Your task to perform on an android device: Add logitech g pro to the cart on target.com Image 0: 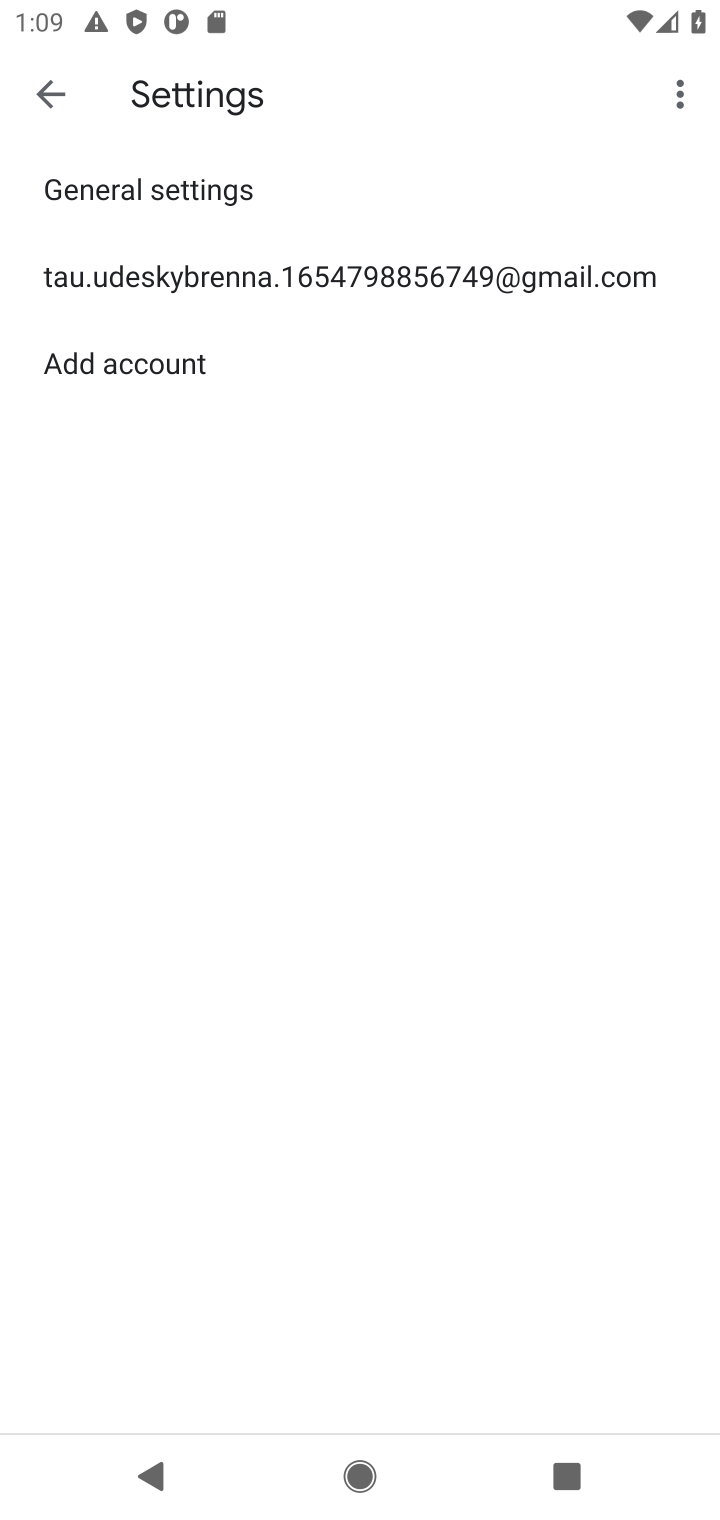
Step 0: press home button
Your task to perform on an android device: Add logitech g pro to the cart on target.com Image 1: 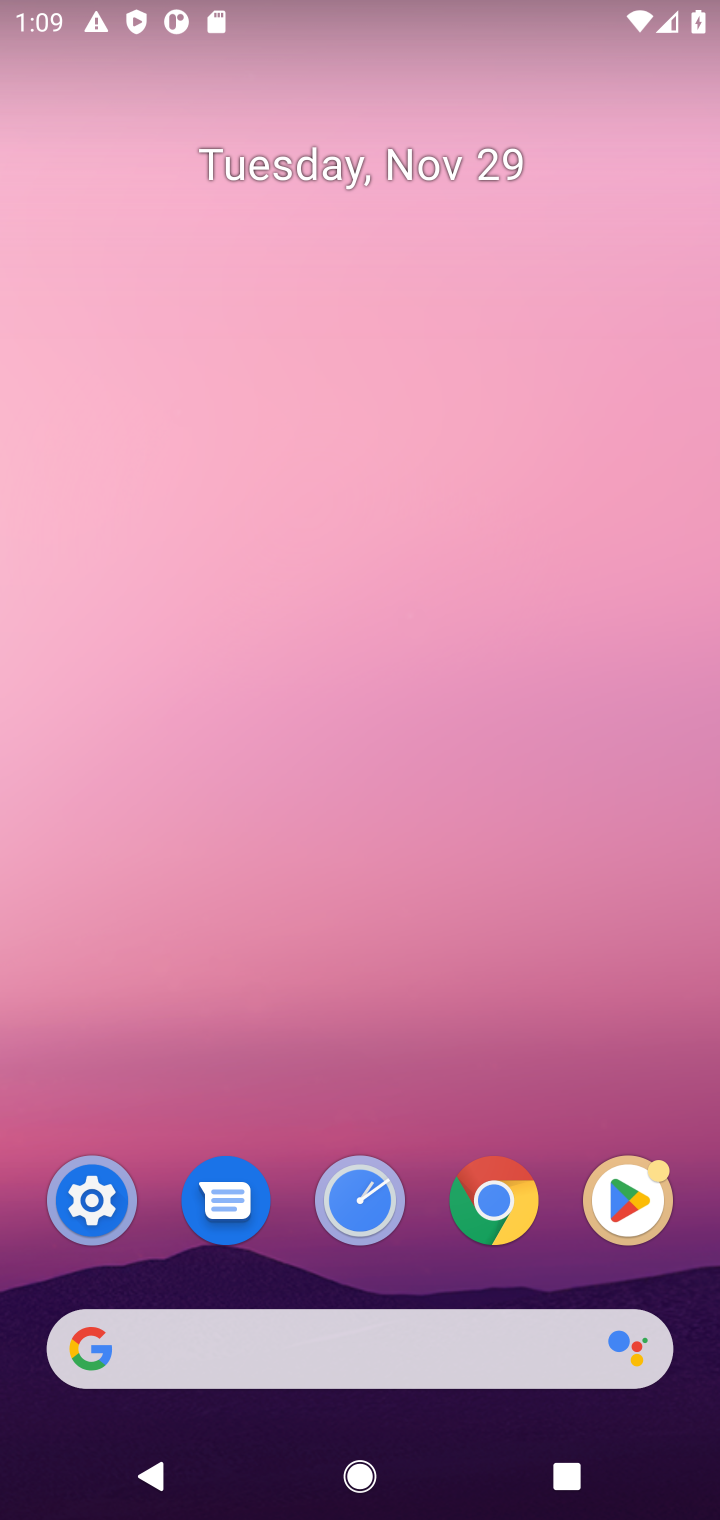
Step 1: click (277, 1359)
Your task to perform on an android device: Add logitech g pro to the cart on target.com Image 2: 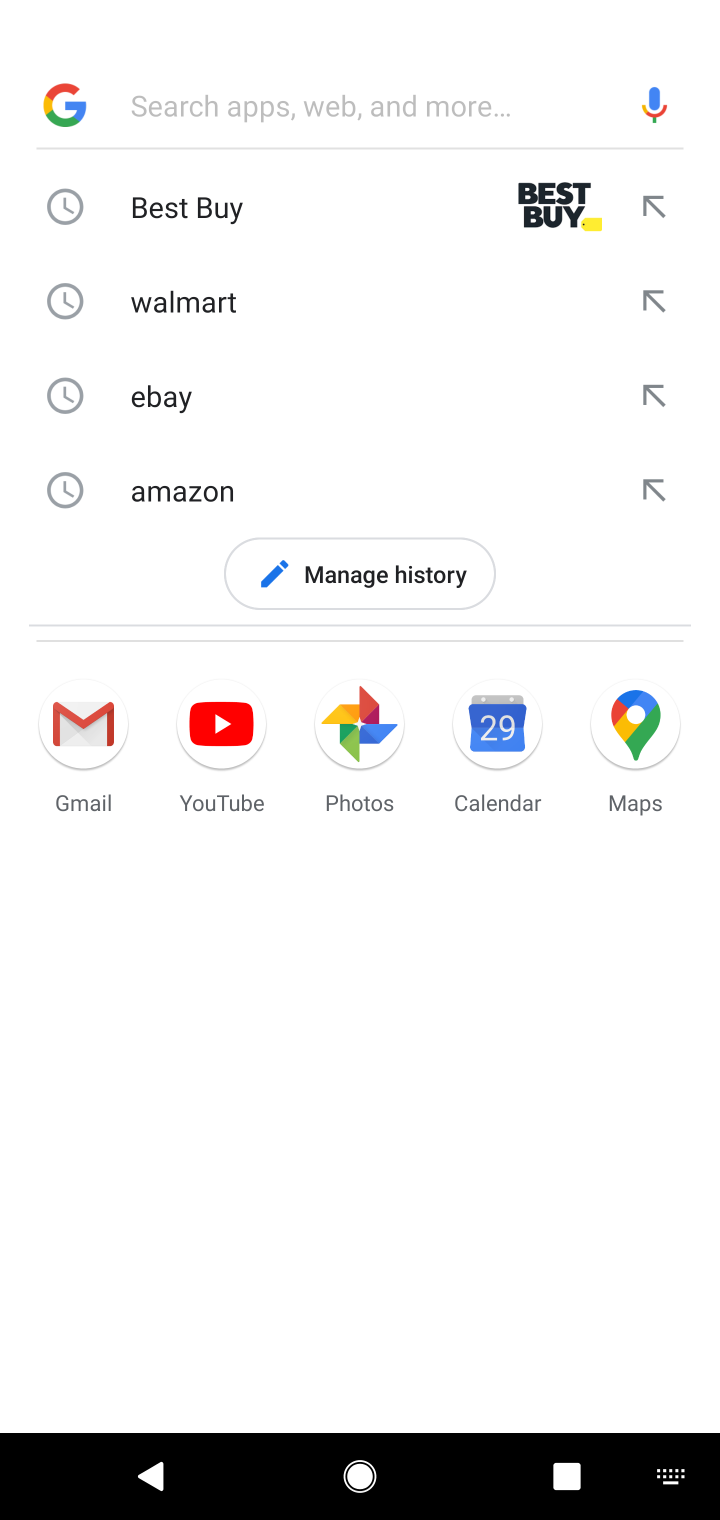
Step 2: type "target "
Your task to perform on an android device: Add logitech g pro to the cart on target.com Image 3: 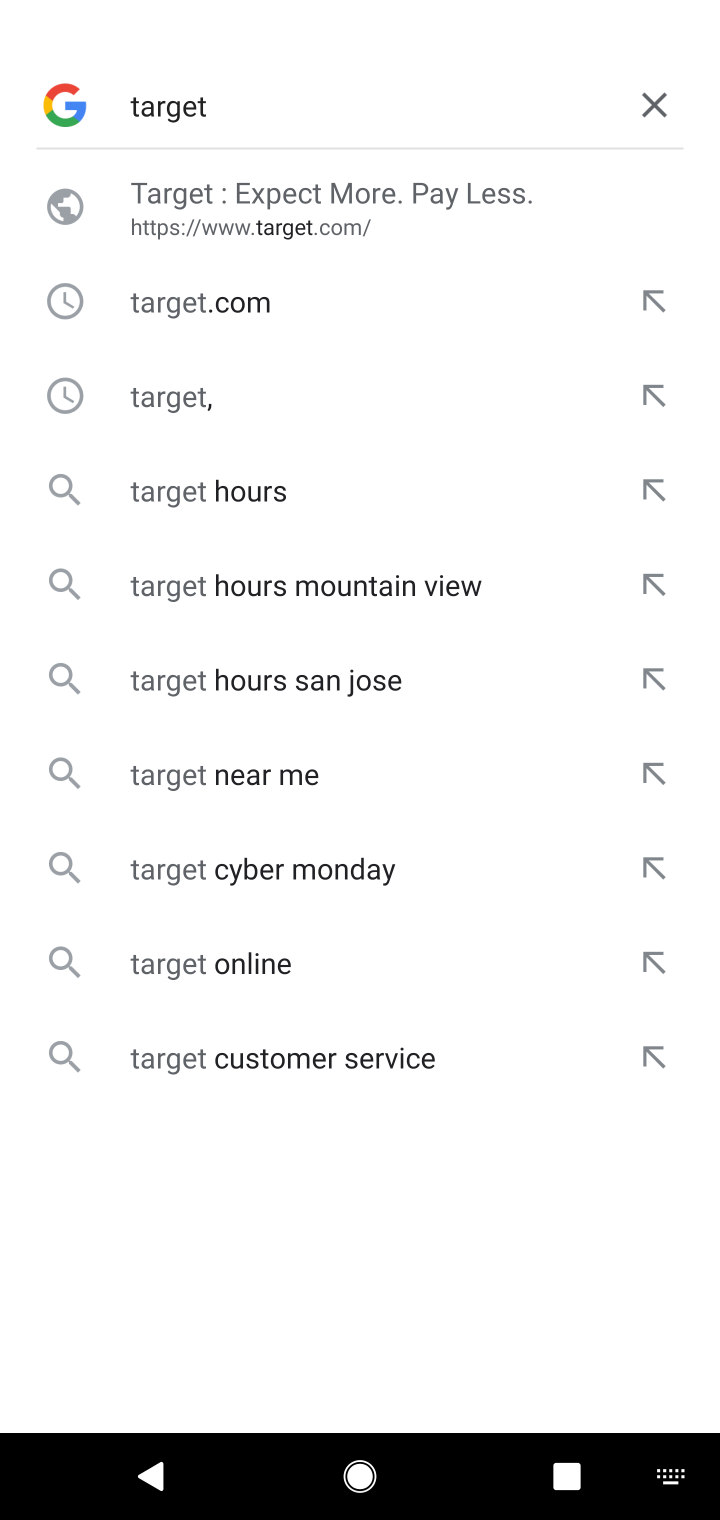
Step 3: click (178, 251)
Your task to perform on an android device: Add logitech g pro to the cart on target.com Image 4: 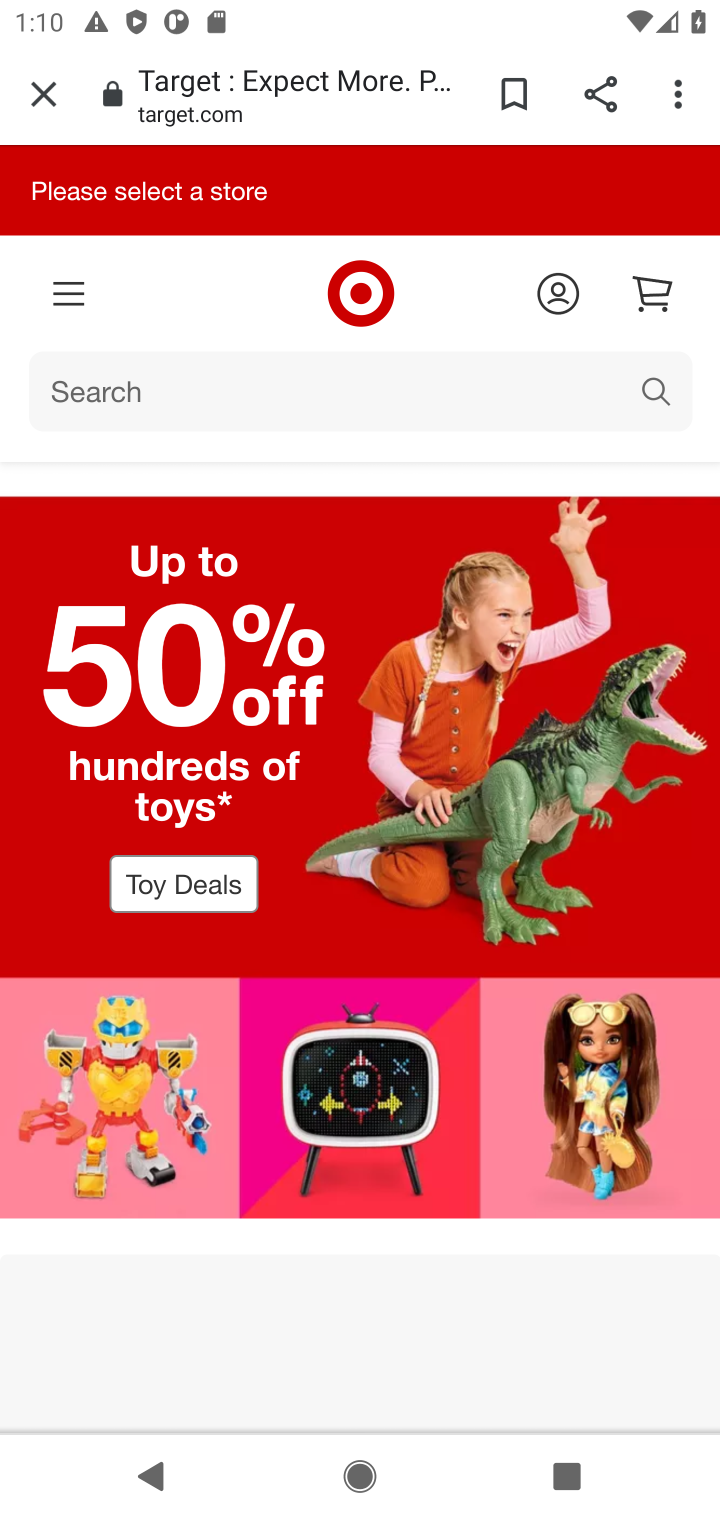
Step 4: click (199, 393)
Your task to perform on an android device: Add logitech g pro to the cart on target.com Image 5: 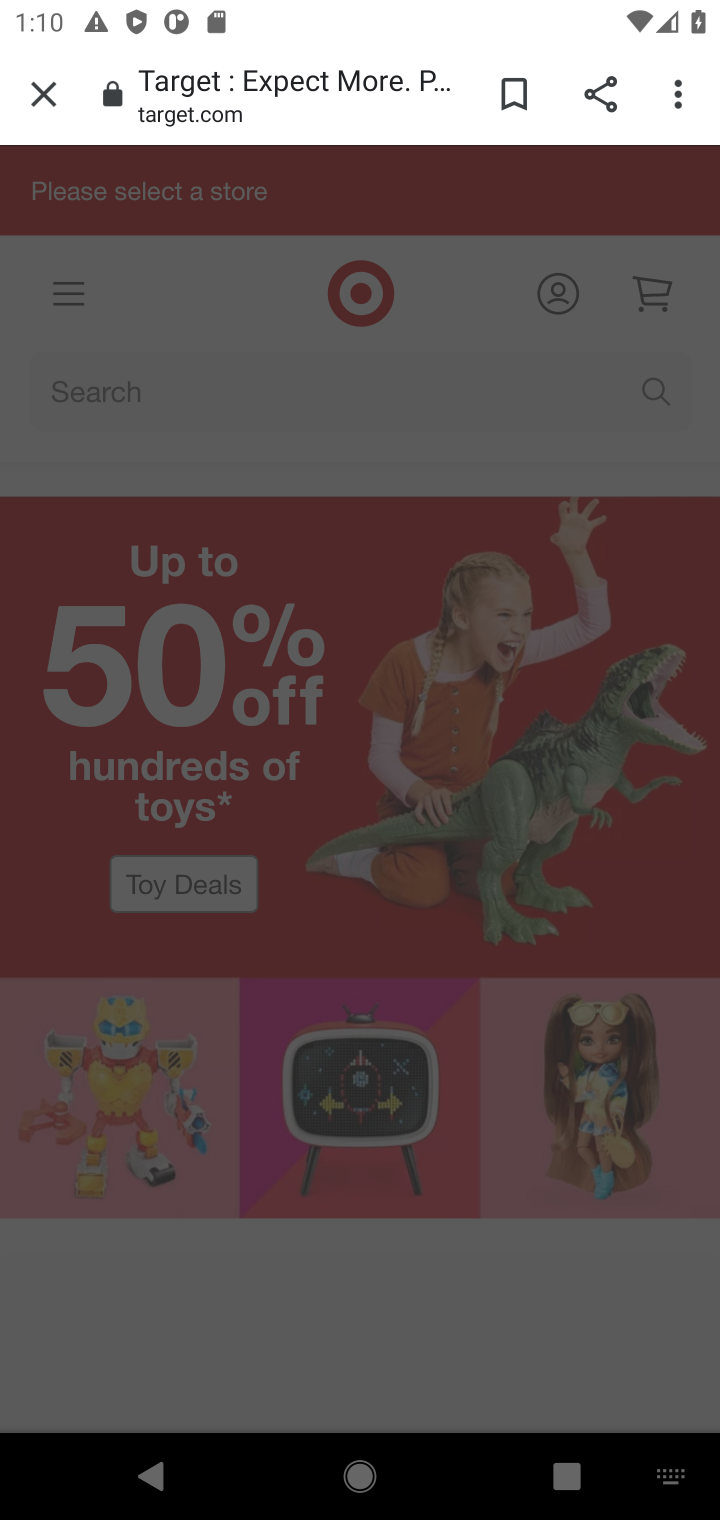
Step 5: type "logitech "
Your task to perform on an android device: Add logitech g pro to the cart on target.com Image 6: 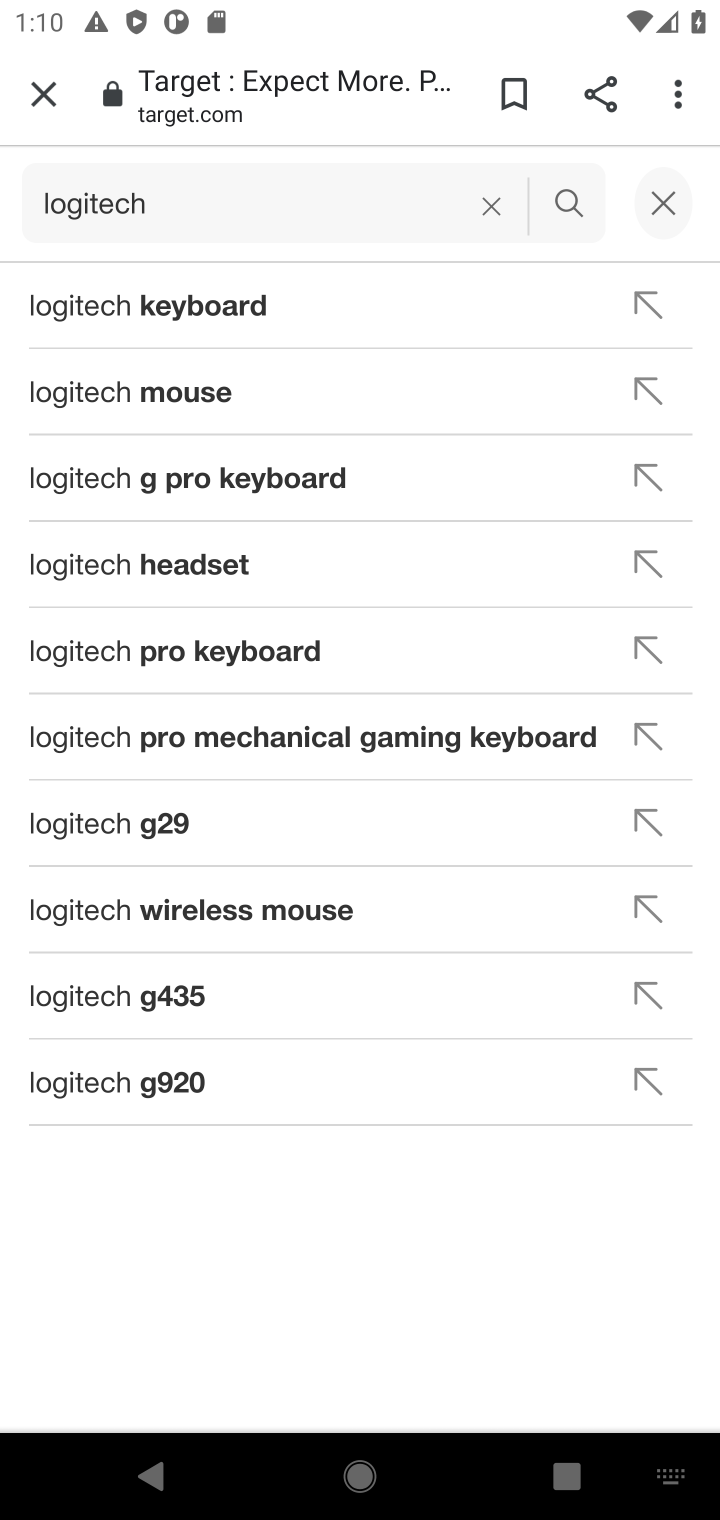
Step 6: click (225, 349)
Your task to perform on an android device: Add logitech g pro to the cart on target.com Image 7: 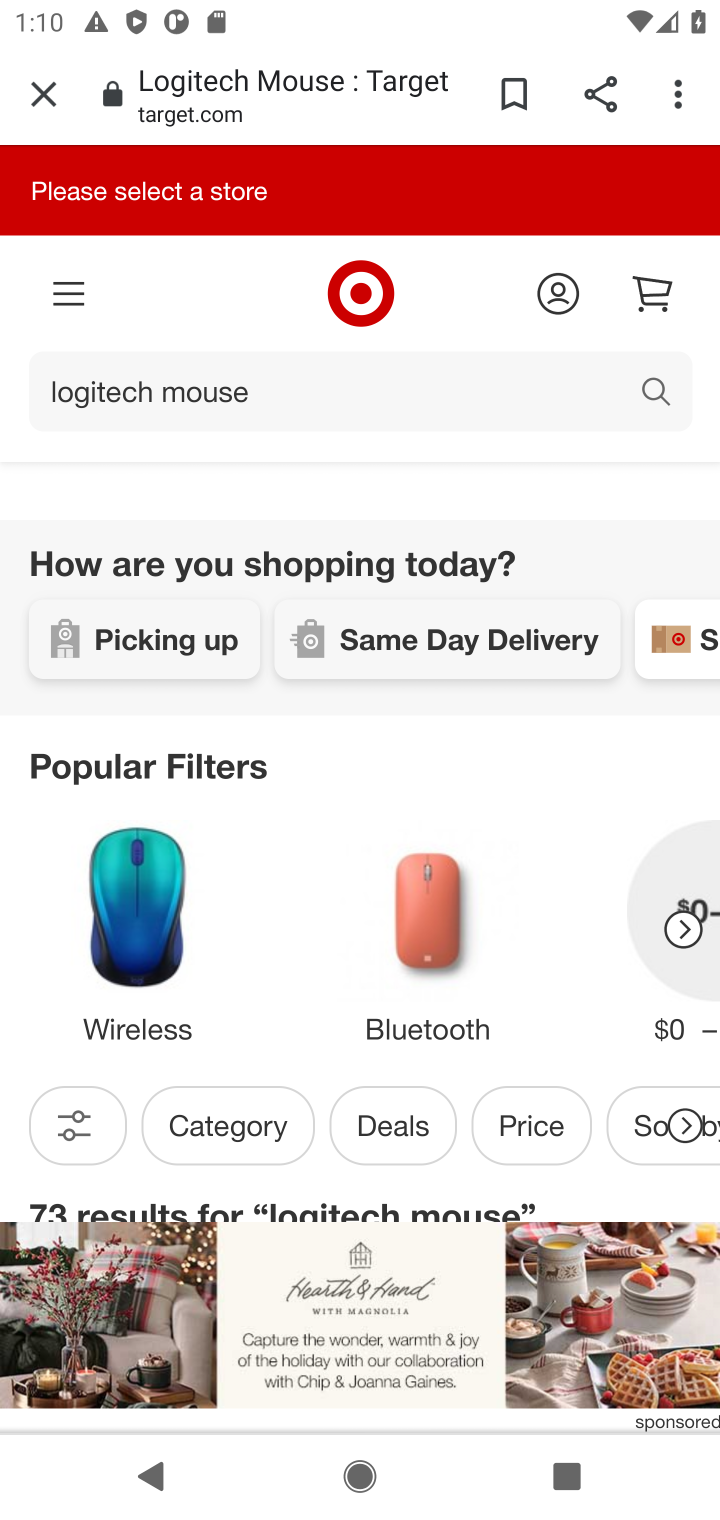
Step 7: task complete